Your task to perform on an android device: change timer sound Image 0: 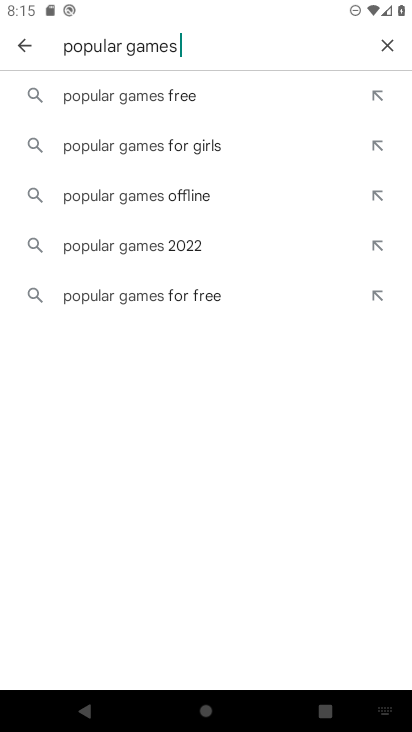
Step 0: press home button
Your task to perform on an android device: change timer sound Image 1: 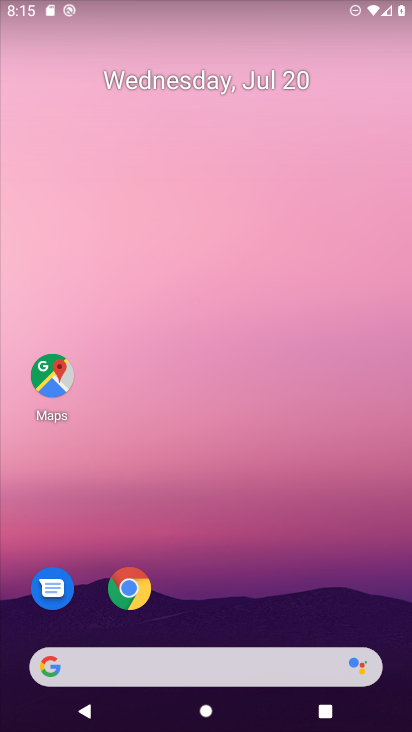
Step 1: drag from (54, 681) to (199, 261)
Your task to perform on an android device: change timer sound Image 2: 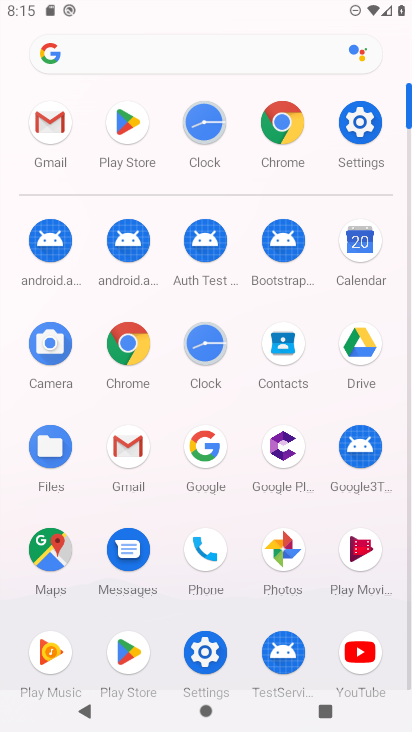
Step 2: click (199, 341)
Your task to perform on an android device: change timer sound Image 3: 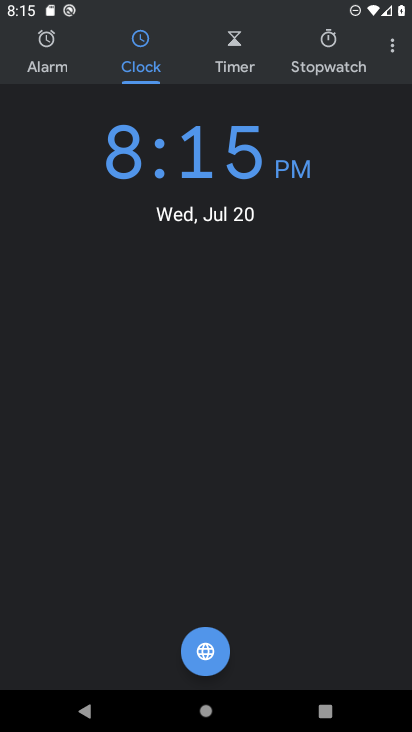
Step 3: click (223, 34)
Your task to perform on an android device: change timer sound Image 4: 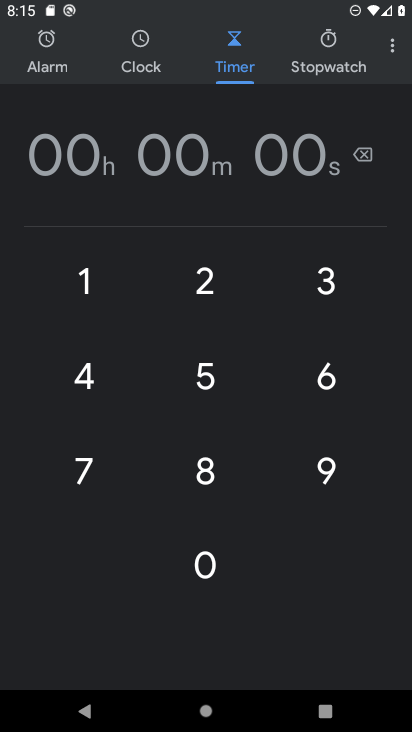
Step 4: click (391, 34)
Your task to perform on an android device: change timer sound Image 5: 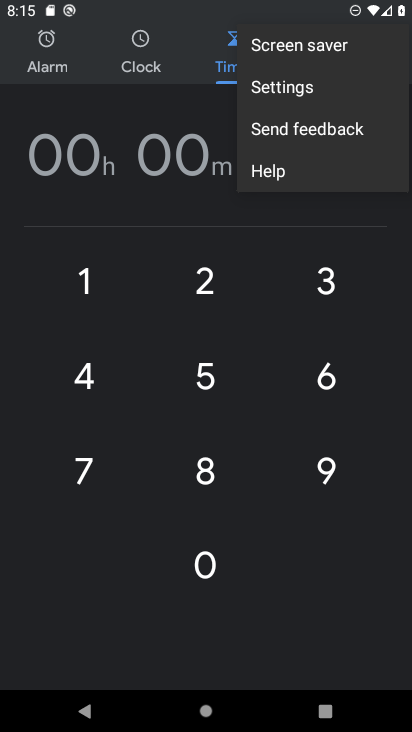
Step 5: click (284, 95)
Your task to perform on an android device: change timer sound Image 6: 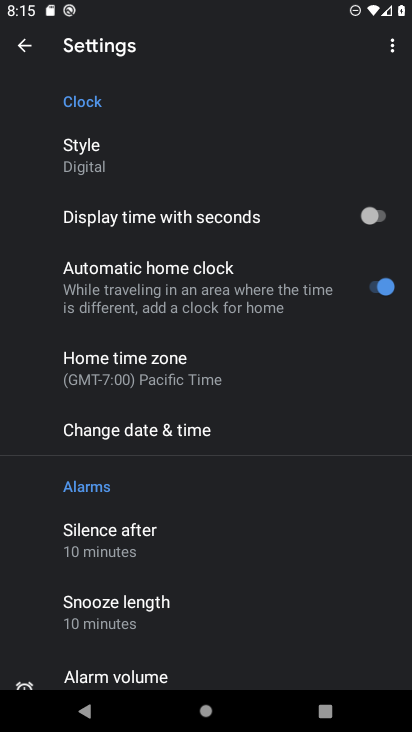
Step 6: drag from (269, 635) to (345, 344)
Your task to perform on an android device: change timer sound Image 7: 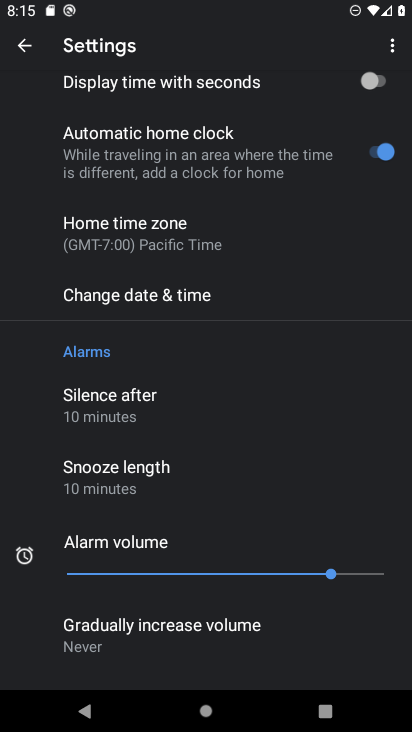
Step 7: drag from (302, 660) to (316, 448)
Your task to perform on an android device: change timer sound Image 8: 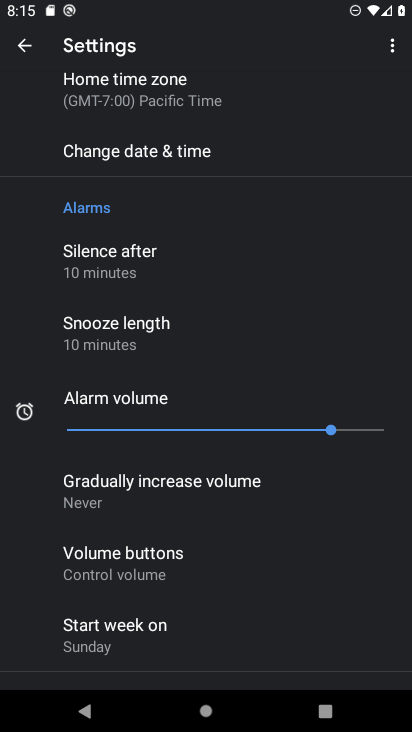
Step 8: drag from (287, 628) to (302, 326)
Your task to perform on an android device: change timer sound Image 9: 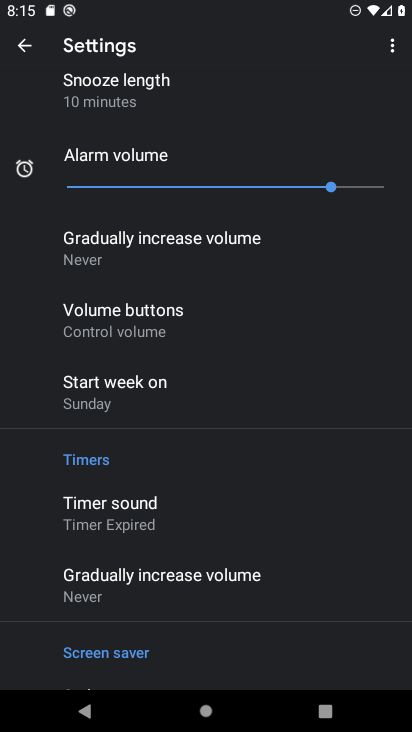
Step 9: drag from (290, 673) to (312, 349)
Your task to perform on an android device: change timer sound Image 10: 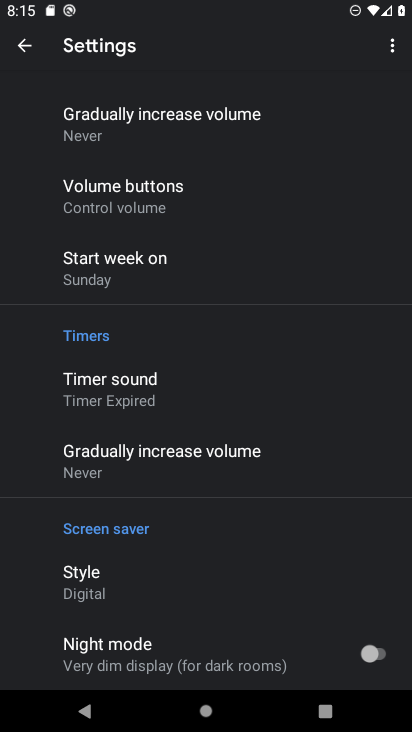
Step 10: click (86, 393)
Your task to perform on an android device: change timer sound Image 11: 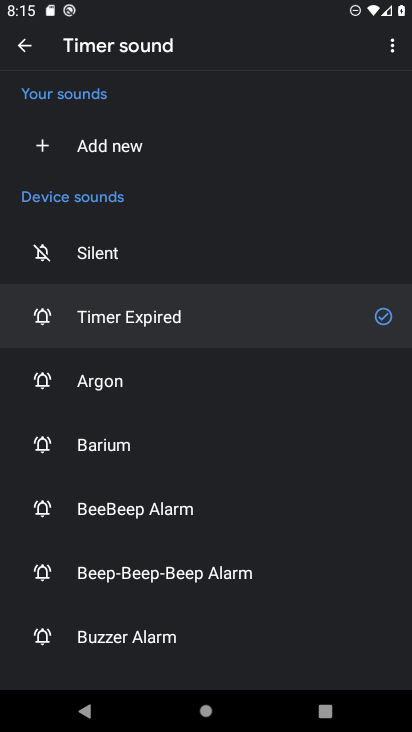
Step 11: click (98, 512)
Your task to perform on an android device: change timer sound Image 12: 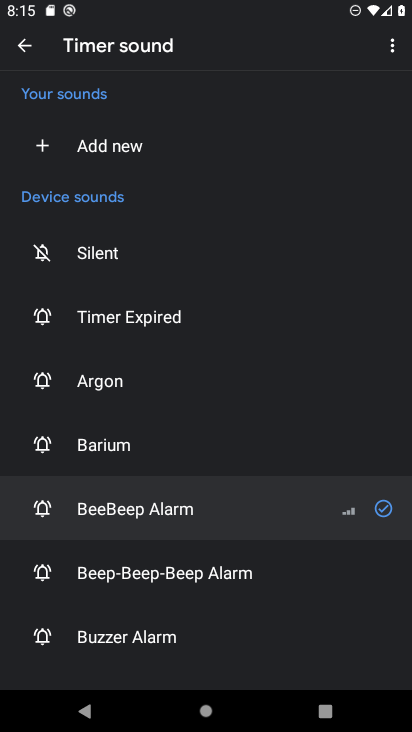
Step 12: task complete